Your task to perform on an android device: Do I have any events tomorrow? Image 0: 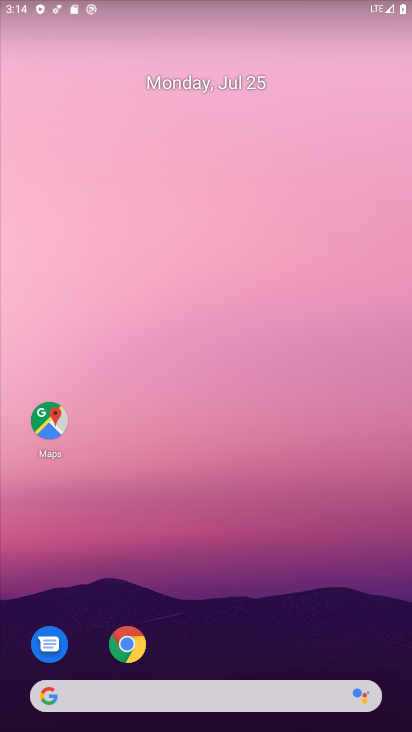
Step 0: drag from (284, 667) to (196, 141)
Your task to perform on an android device: Do I have any events tomorrow? Image 1: 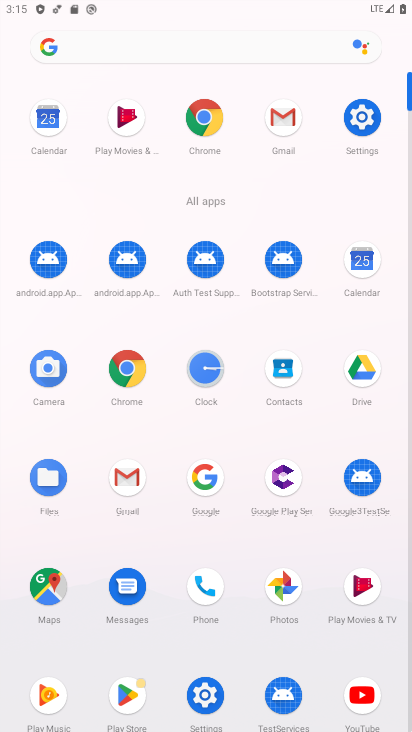
Step 1: click (356, 245)
Your task to perform on an android device: Do I have any events tomorrow? Image 2: 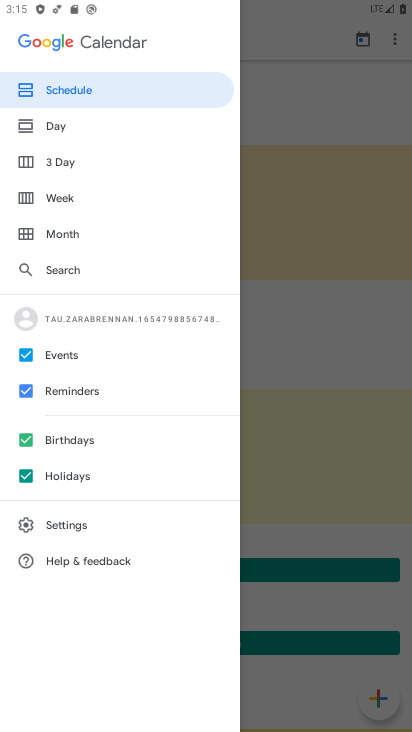
Step 2: click (26, 478)
Your task to perform on an android device: Do I have any events tomorrow? Image 3: 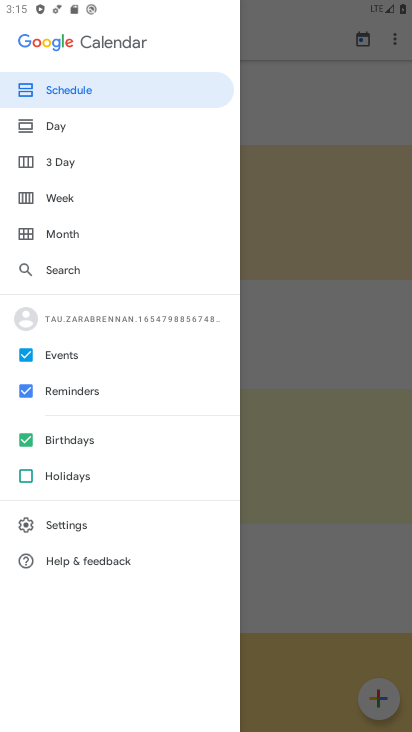
Step 3: click (19, 437)
Your task to perform on an android device: Do I have any events tomorrow? Image 4: 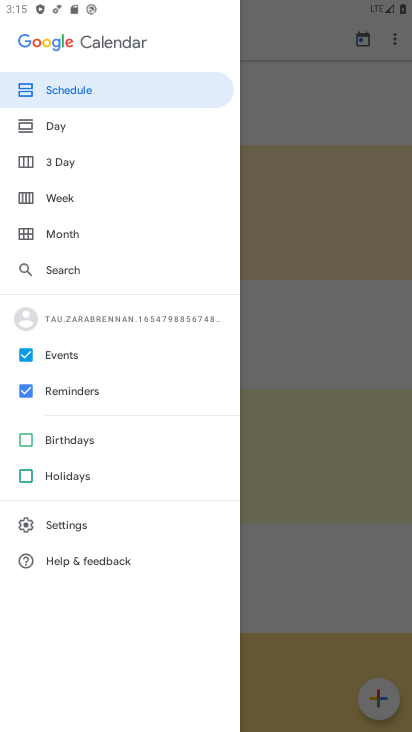
Step 4: click (24, 387)
Your task to perform on an android device: Do I have any events tomorrow? Image 5: 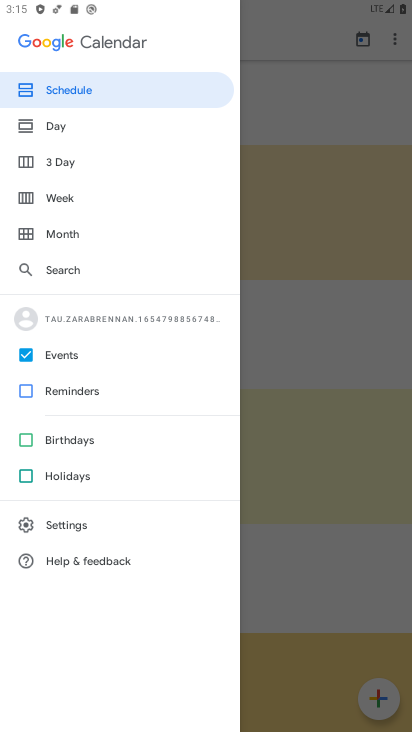
Step 5: click (68, 115)
Your task to perform on an android device: Do I have any events tomorrow? Image 6: 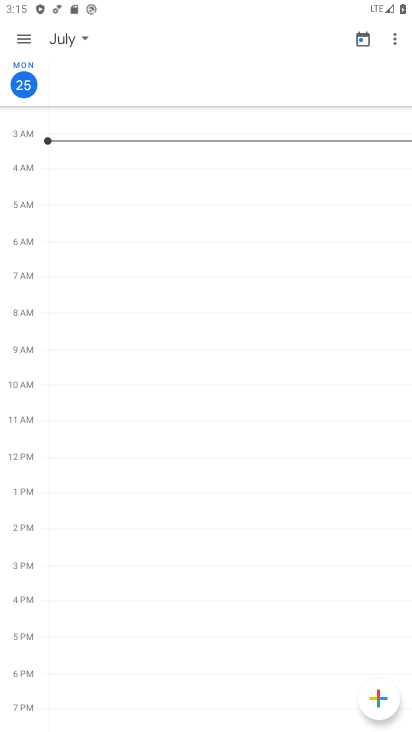
Step 6: task complete